Your task to perform on an android device: toggle javascript in the chrome app Image 0: 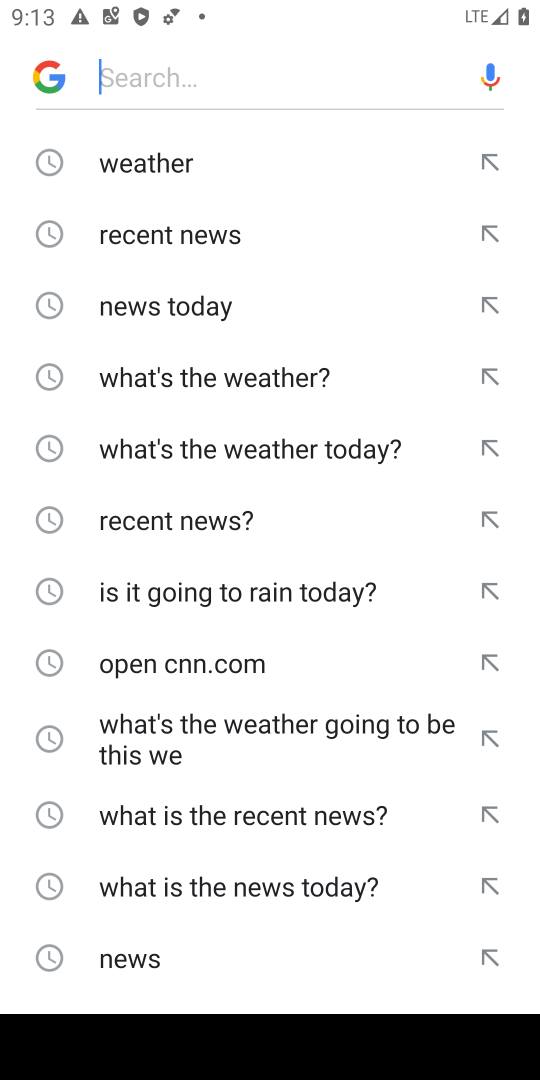
Step 0: press home button
Your task to perform on an android device: toggle javascript in the chrome app Image 1: 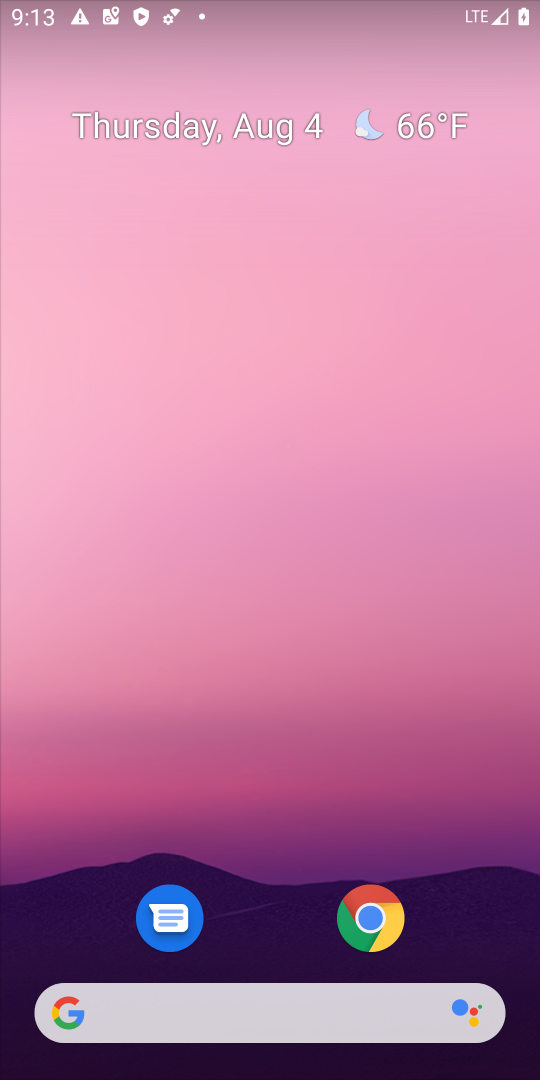
Step 1: drag from (435, 930) to (442, 218)
Your task to perform on an android device: toggle javascript in the chrome app Image 2: 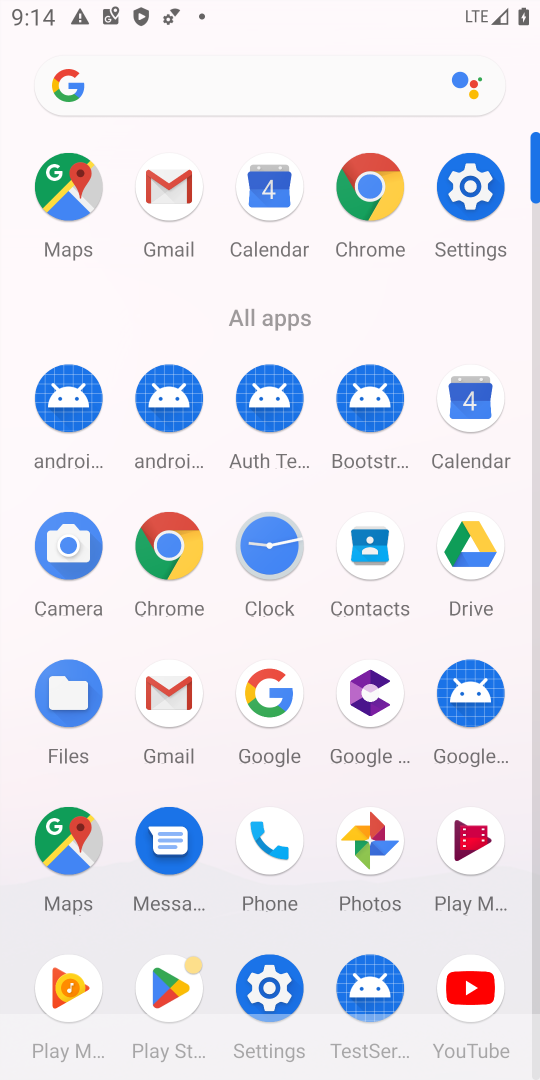
Step 2: click (370, 181)
Your task to perform on an android device: toggle javascript in the chrome app Image 3: 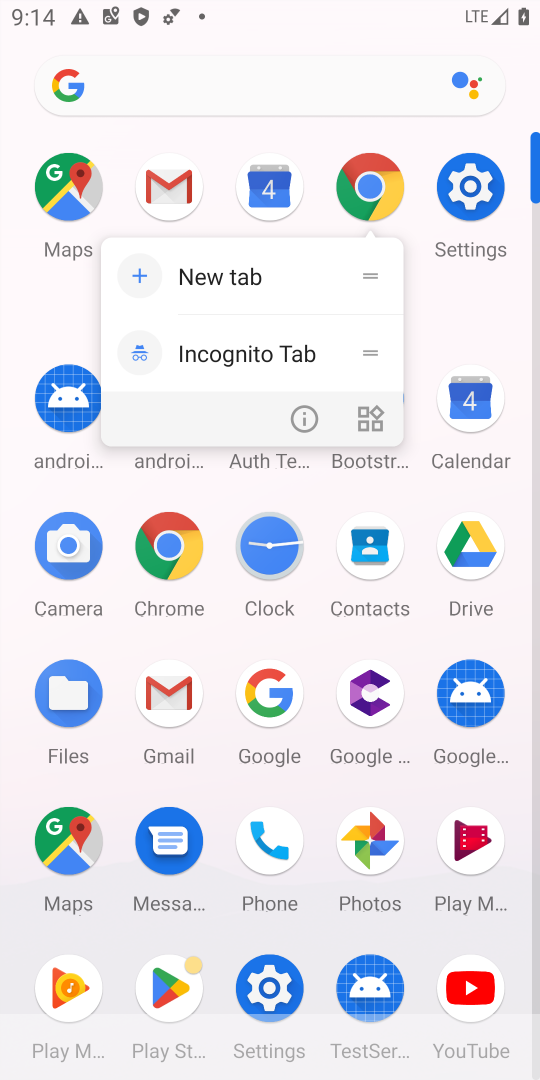
Step 3: click (362, 185)
Your task to perform on an android device: toggle javascript in the chrome app Image 4: 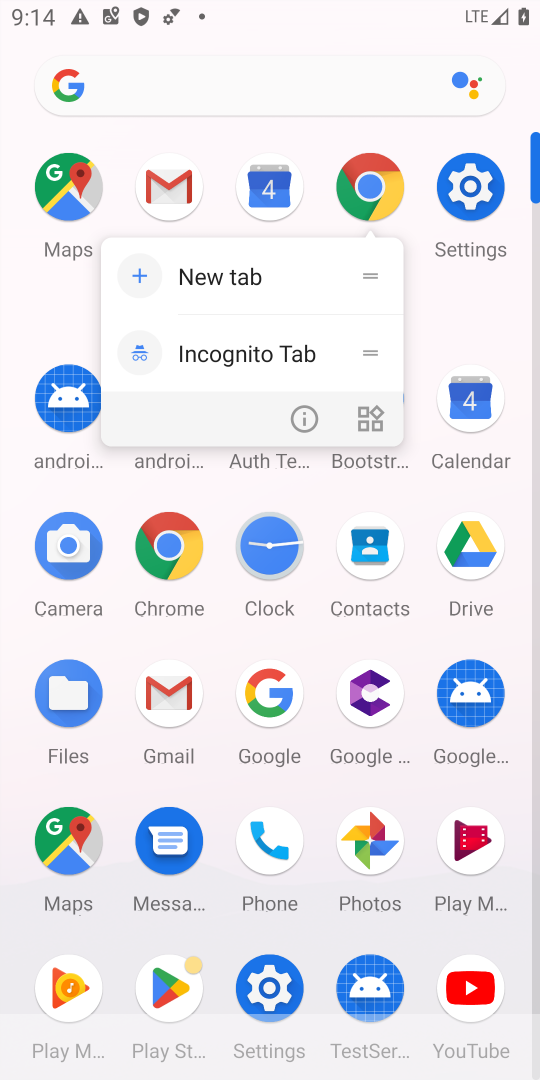
Step 4: click (366, 180)
Your task to perform on an android device: toggle javascript in the chrome app Image 5: 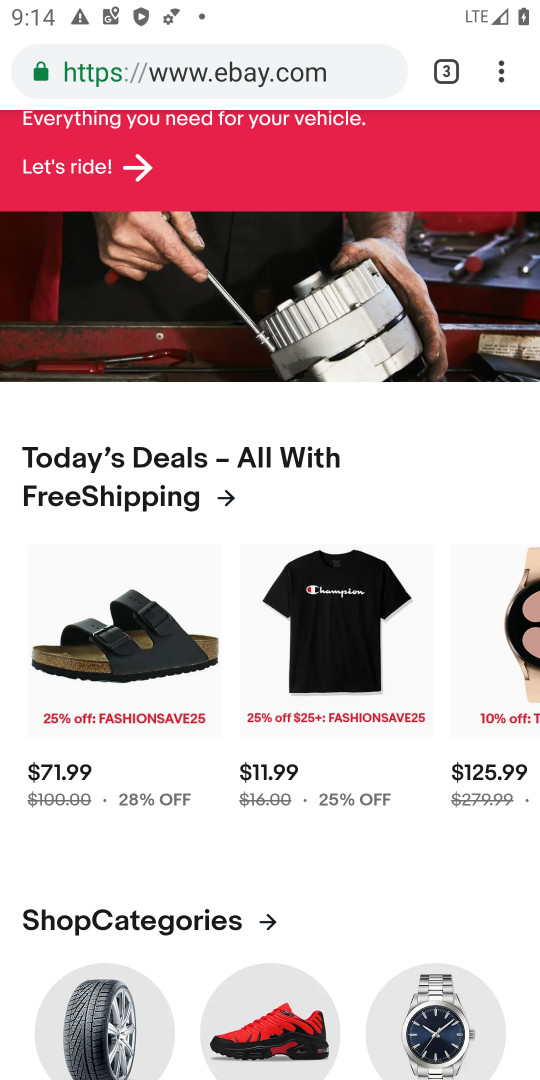
Step 5: click (500, 65)
Your task to perform on an android device: toggle javascript in the chrome app Image 6: 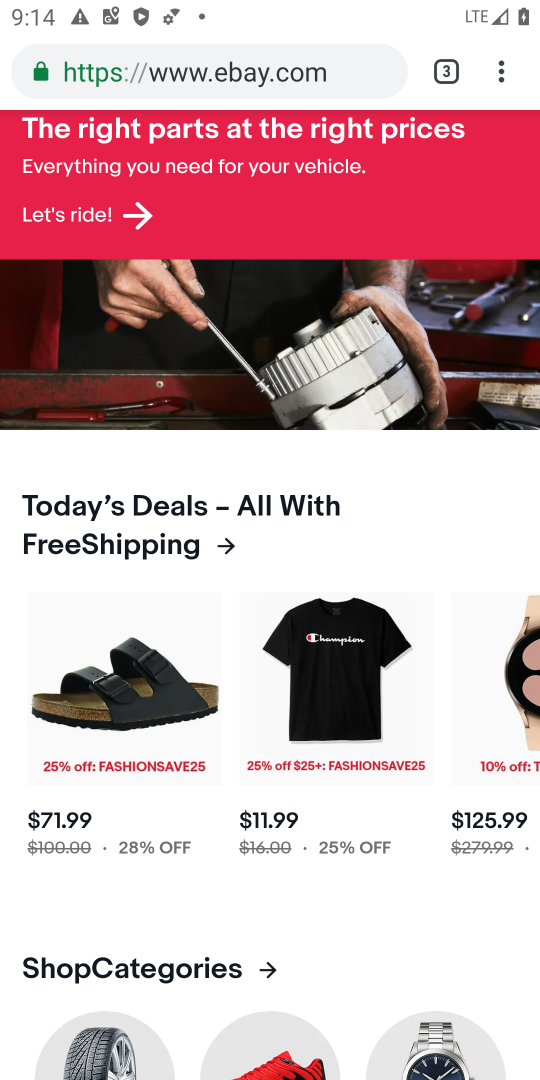
Step 6: click (499, 74)
Your task to perform on an android device: toggle javascript in the chrome app Image 7: 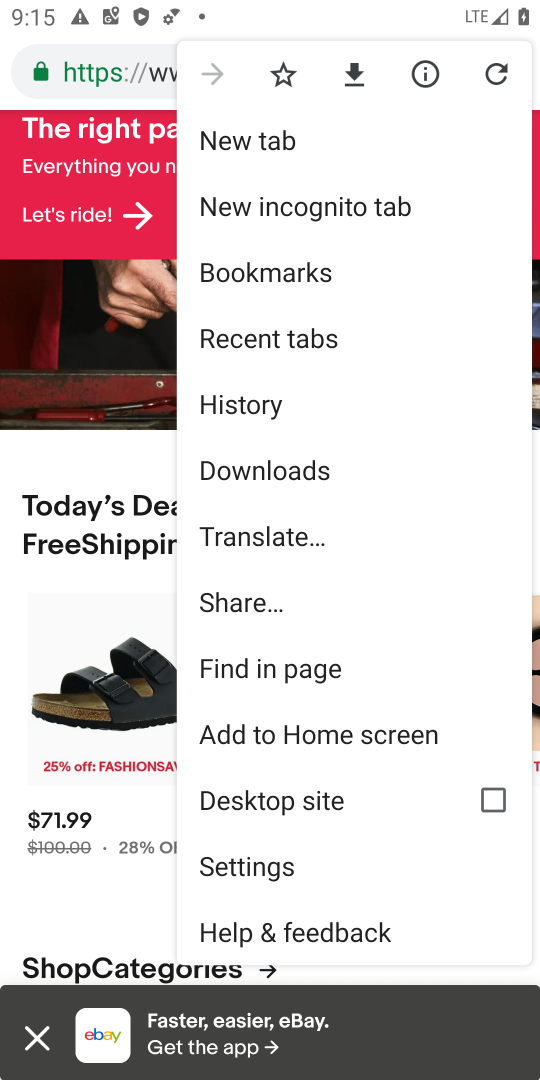
Step 7: click (297, 865)
Your task to perform on an android device: toggle javascript in the chrome app Image 8: 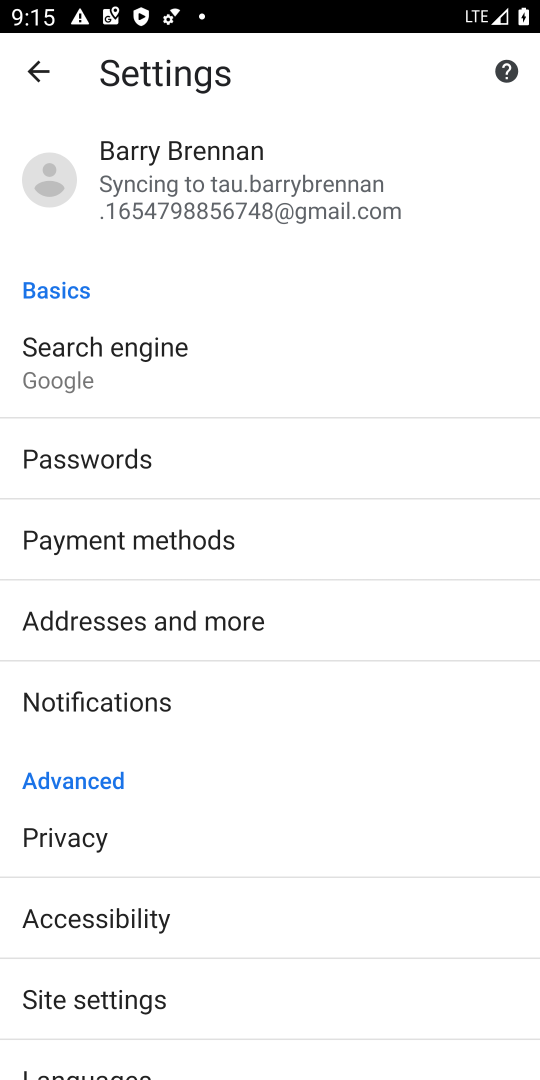
Step 8: drag from (280, 976) to (321, 348)
Your task to perform on an android device: toggle javascript in the chrome app Image 9: 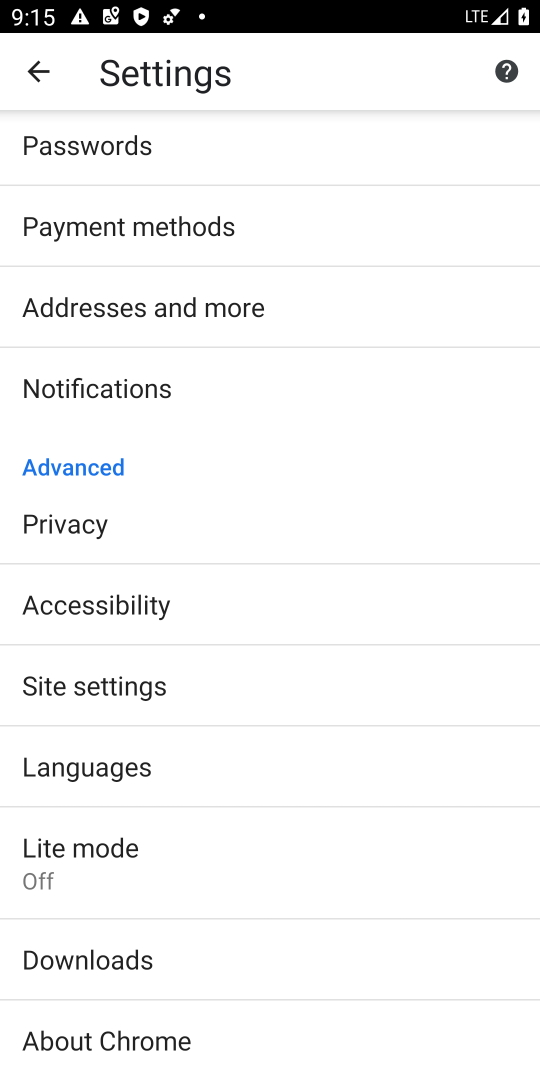
Step 9: click (180, 687)
Your task to perform on an android device: toggle javascript in the chrome app Image 10: 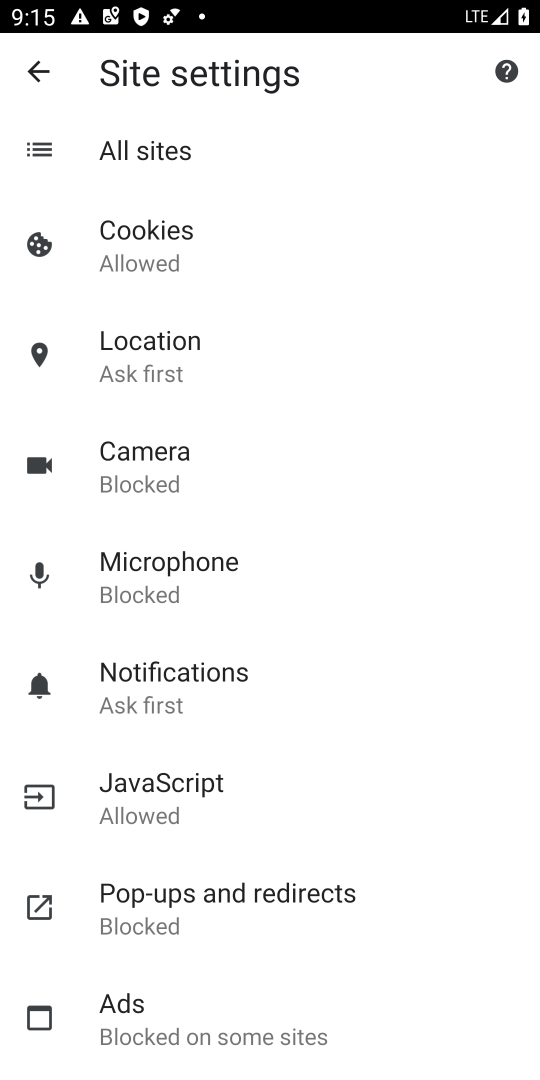
Step 10: click (190, 793)
Your task to perform on an android device: toggle javascript in the chrome app Image 11: 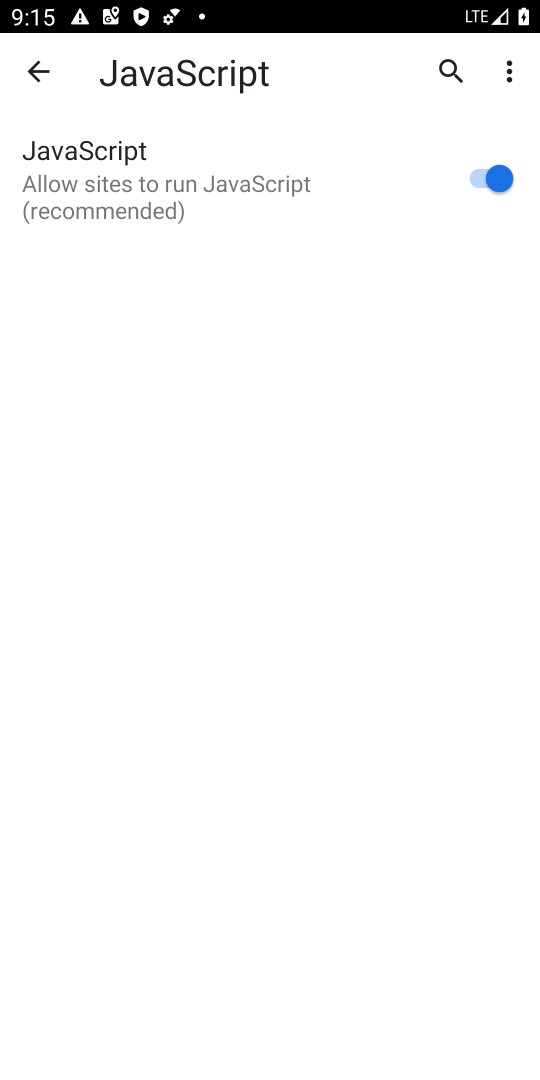
Step 11: click (478, 176)
Your task to perform on an android device: toggle javascript in the chrome app Image 12: 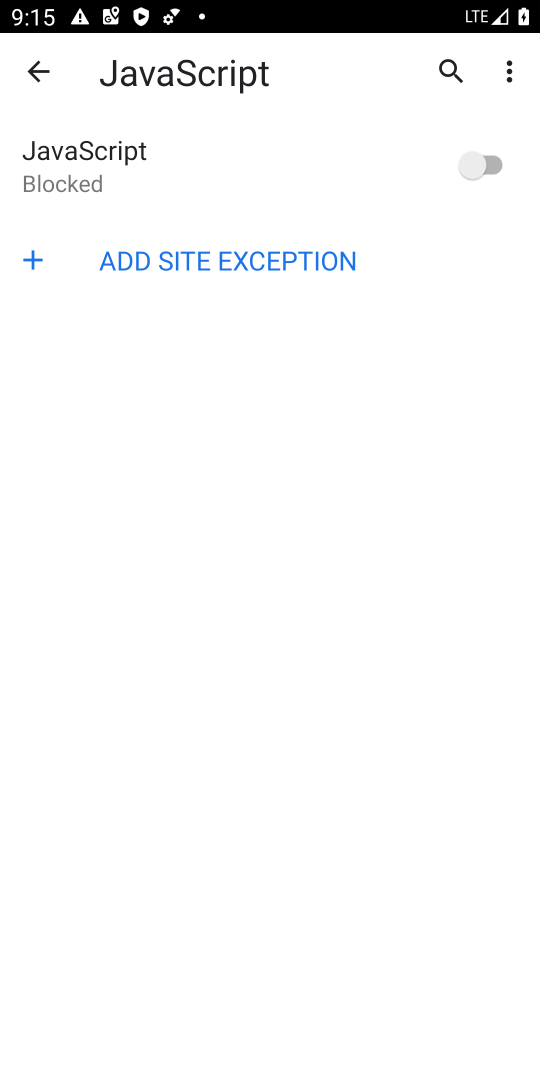
Step 12: task complete